Your task to perform on an android device: Open calendar and show me the third week of next month Image 0: 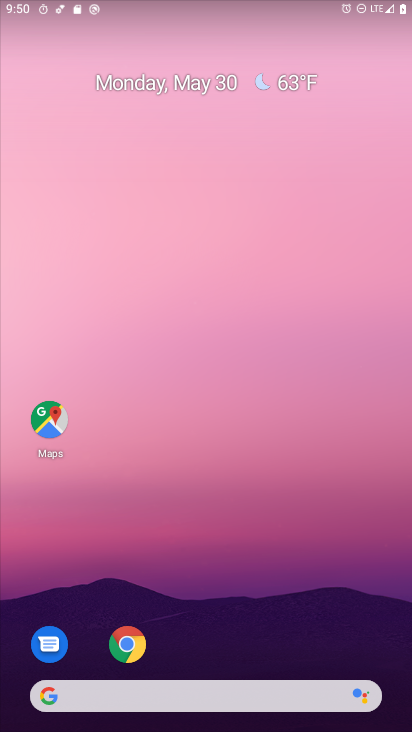
Step 0: drag from (218, 641) to (245, 6)
Your task to perform on an android device: Open calendar and show me the third week of next month Image 1: 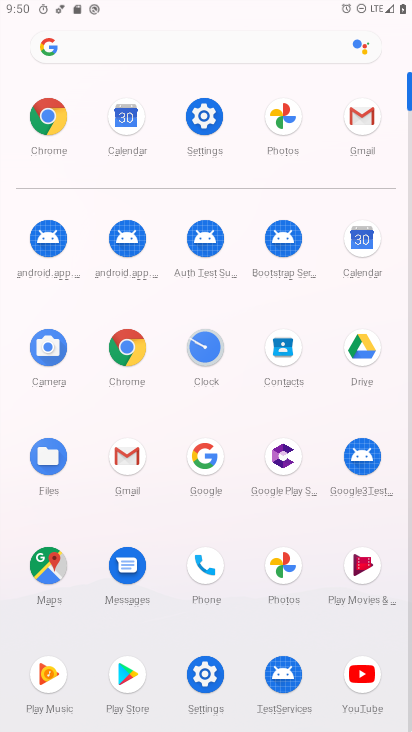
Step 1: click (352, 234)
Your task to perform on an android device: Open calendar and show me the third week of next month Image 2: 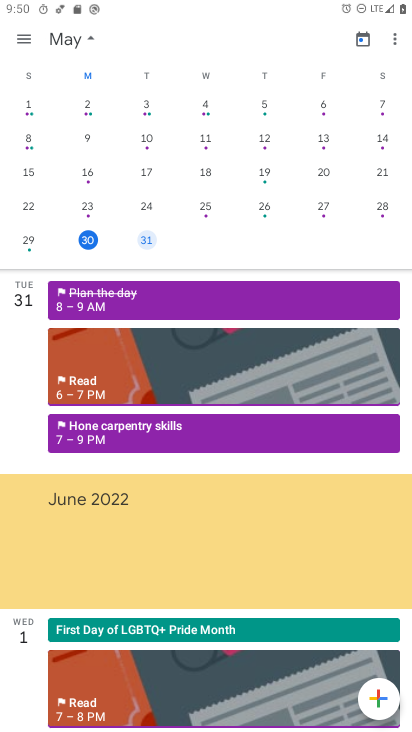
Step 2: drag from (310, 237) to (1, 217)
Your task to perform on an android device: Open calendar and show me the third week of next month Image 3: 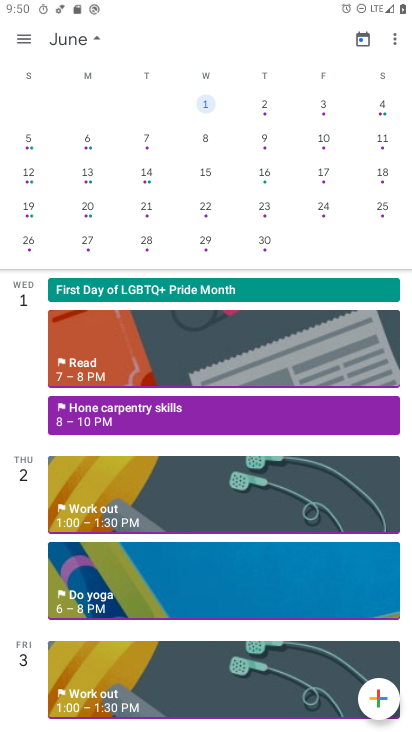
Step 3: click (211, 175)
Your task to perform on an android device: Open calendar and show me the third week of next month Image 4: 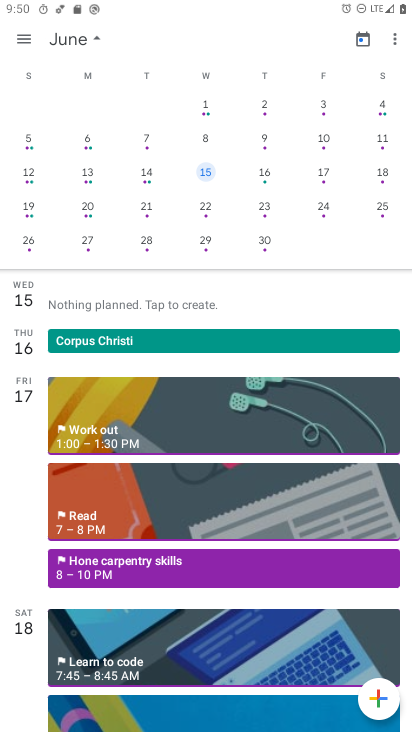
Step 4: task complete